Your task to perform on an android device: Do I have any events today? Image 0: 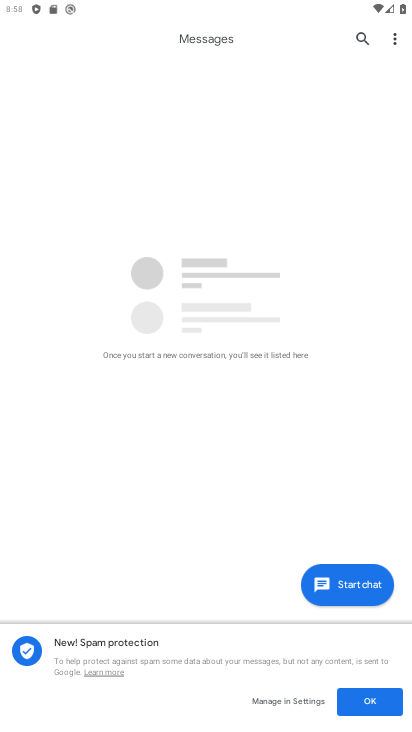
Step 0: press home button
Your task to perform on an android device: Do I have any events today? Image 1: 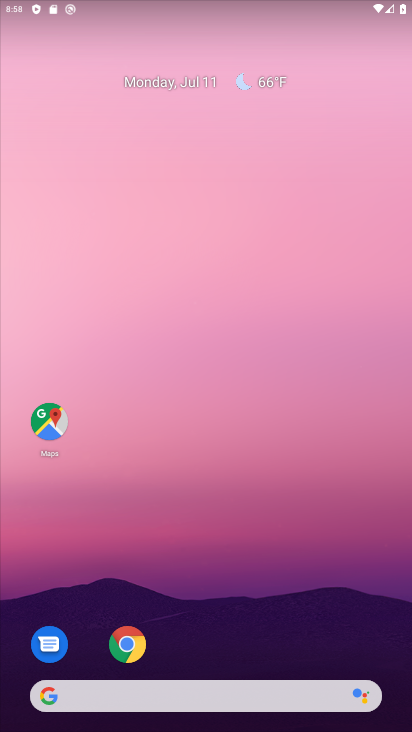
Step 1: drag from (332, 615) to (274, 144)
Your task to perform on an android device: Do I have any events today? Image 2: 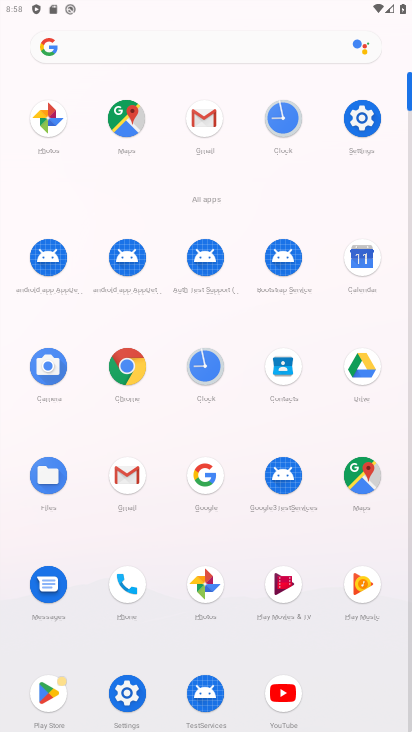
Step 2: click (365, 254)
Your task to perform on an android device: Do I have any events today? Image 3: 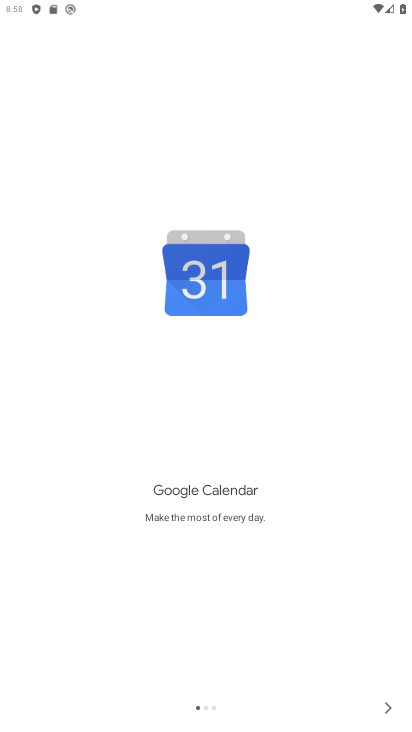
Step 3: click (390, 705)
Your task to perform on an android device: Do I have any events today? Image 4: 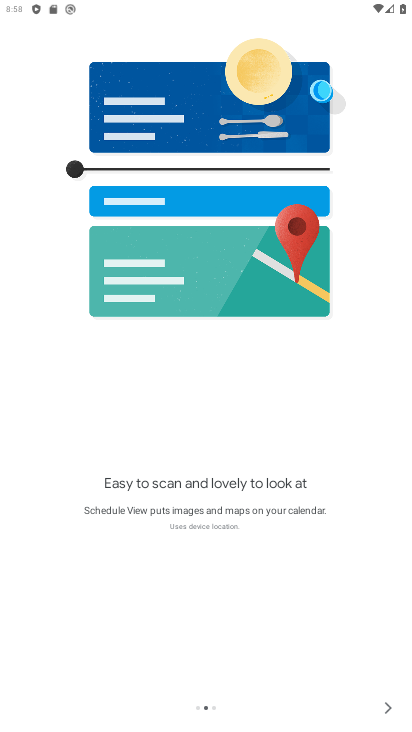
Step 4: click (390, 704)
Your task to perform on an android device: Do I have any events today? Image 5: 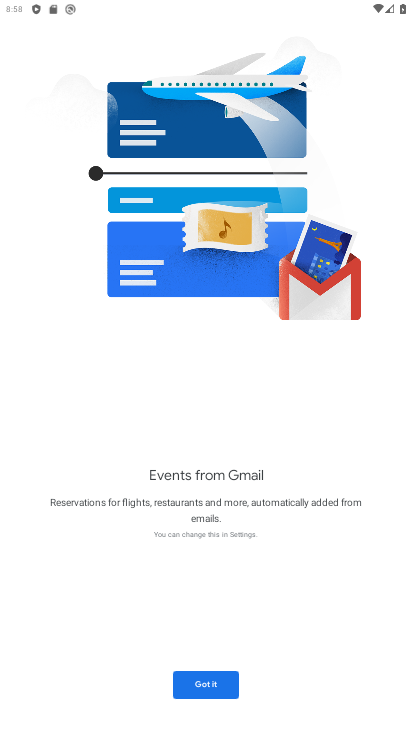
Step 5: click (390, 704)
Your task to perform on an android device: Do I have any events today? Image 6: 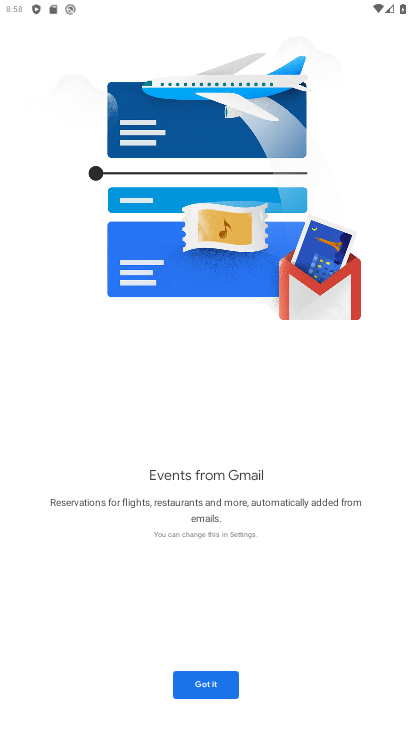
Step 6: click (230, 684)
Your task to perform on an android device: Do I have any events today? Image 7: 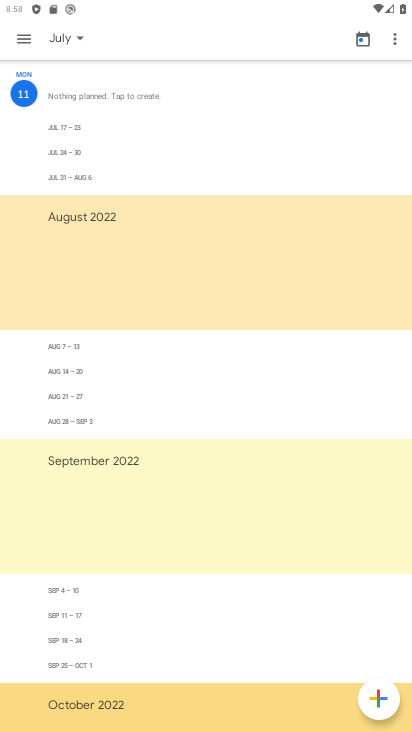
Step 7: task complete